Your task to perform on an android device: manage bookmarks in the chrome app Image 0: 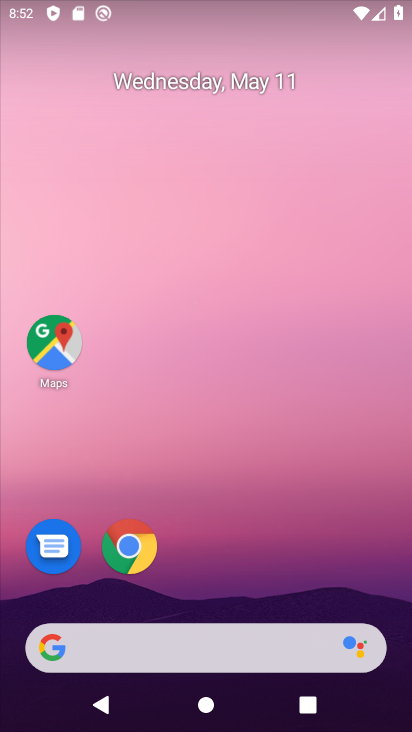
Step 0: click (116, 555)
Your task to perform on an android device: manage bookmarks in the chrome app Image 1: 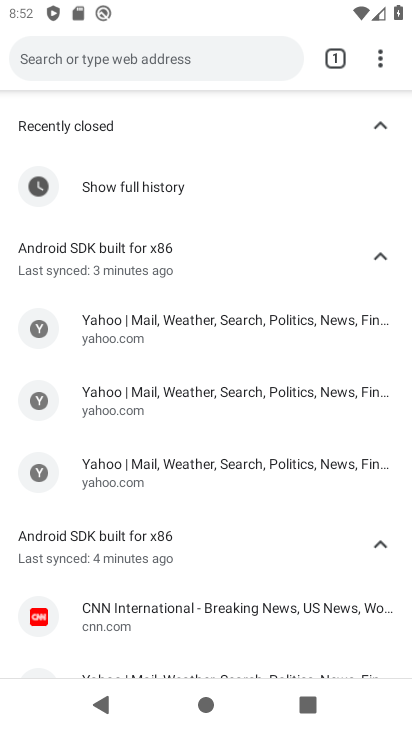
Step 1: click (386, 66)
Your task to perform on an android device: manage bookmarks in the chrome app Image 2: 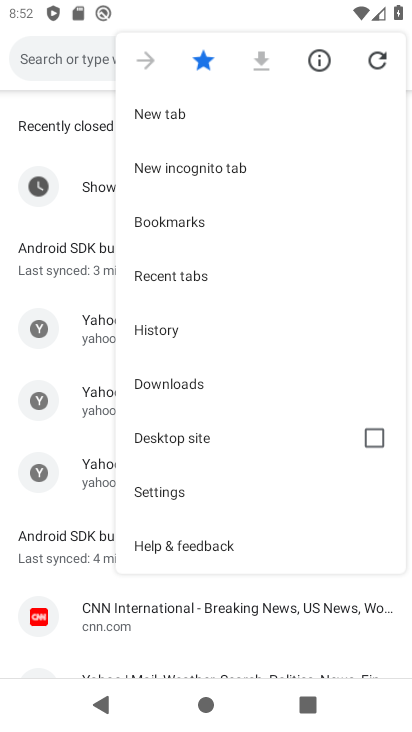
Step 2: click (206, 219)
Your task to perform on an android device: manage bookmarks in the chrome app Image 3: 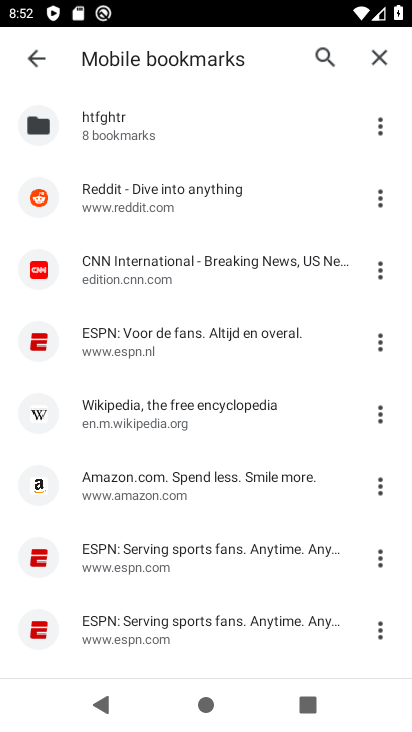
Step 3: click (39, 556)
Your task to perform on an android device: manage bookmarks in the chrome app Image 4: 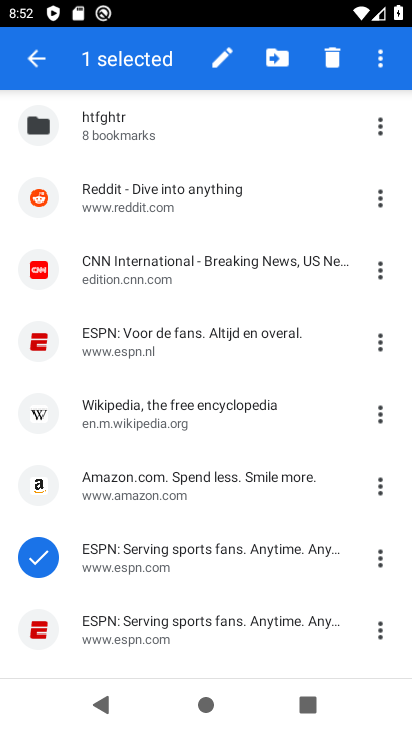
Step 4: click (40, 479)
Your task to perform on an android device: manage bookmarks in the chrome app Image 5: 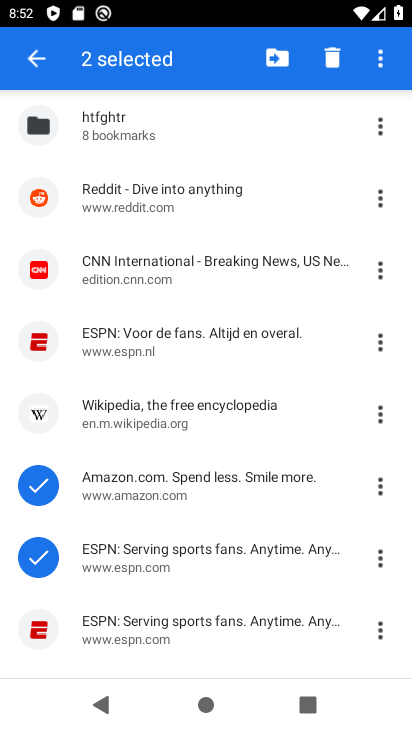
Step 5: click (40, 422)
Your task to perform on an android device: manage bookmarks in the chrome app Image 6: 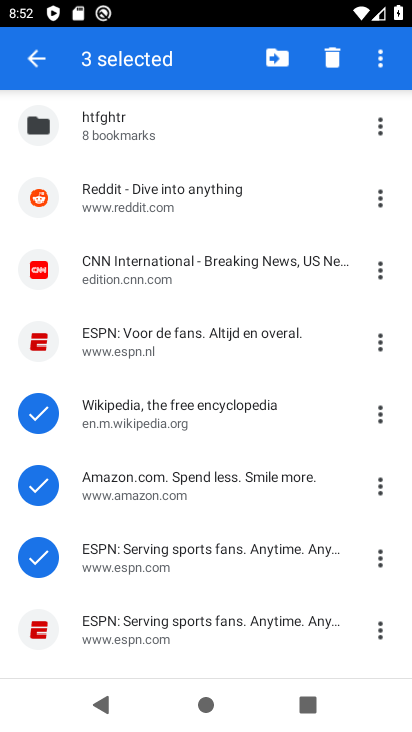
Step 6: click (286, 55)
Your task to perform on an android device: manage bookmarks in the chrome app Image 7: 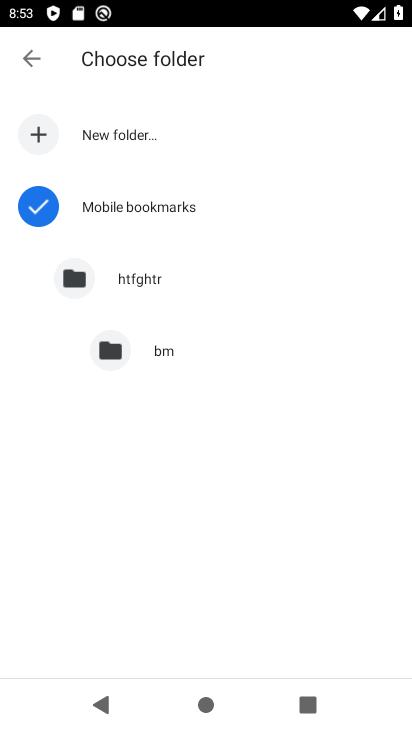
Step 7: click (182, 339)
Your task to perform on an android device: manage bookmarks in the chrome app Image 8: 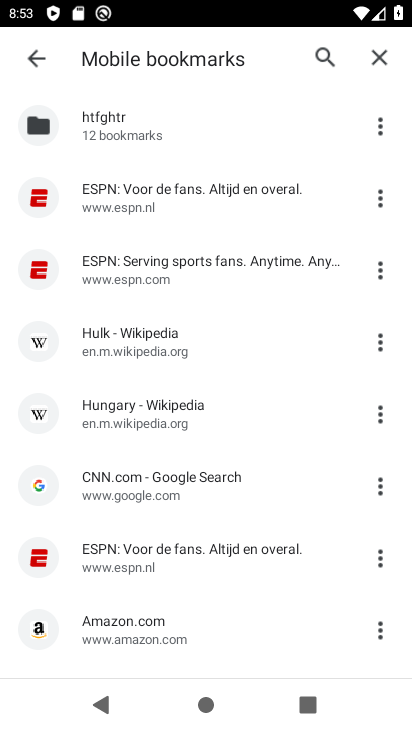
Step 8: click (46, 271)
Your task to perform on an android device: manage bookmarks in the chrome app Image 9: 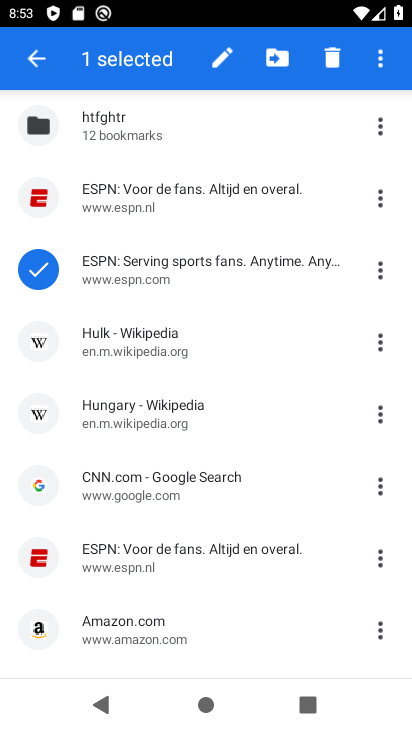
Step 9: click (39, 339)
Your task to perform on an android device: manage bookmarks in the chrome app Image 10: 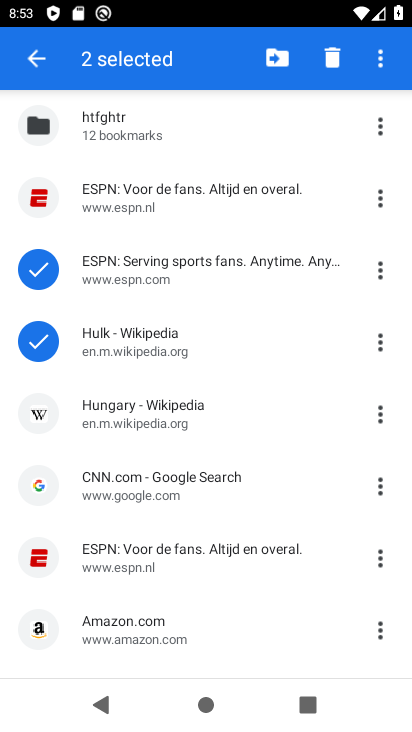
Step 10: click (43, 411)
Your task to perform on an android device: manage bookmarks in the chrome app Image 11: 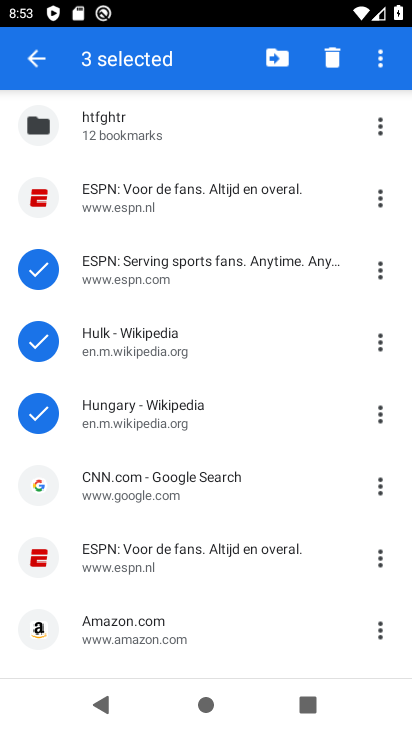
Step 11: click (36, 486)
Your task to perform on an android device: manage bookmarks in the chrome app Image 12: 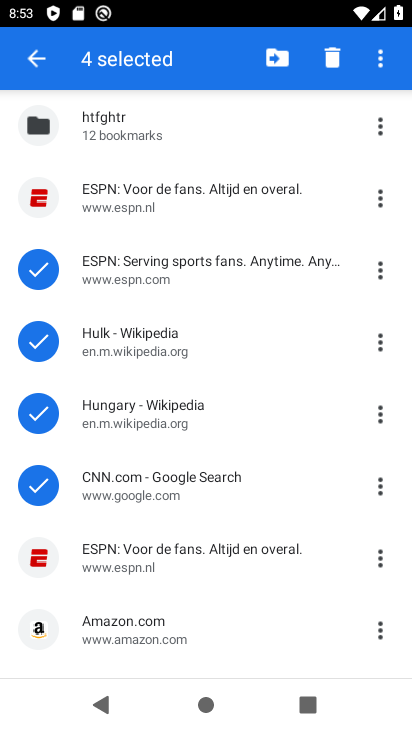
Step 12: click (38, 568)
Your task to perform on an android device: manage bookmarks in the chrome app Image 13: 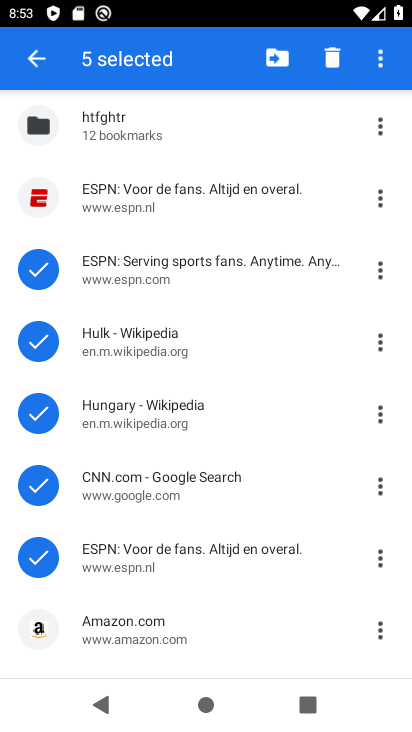
Step 13: click (43, 626)
Your task to perform on an android device: manage bookmarks in the chrome app Image 14: 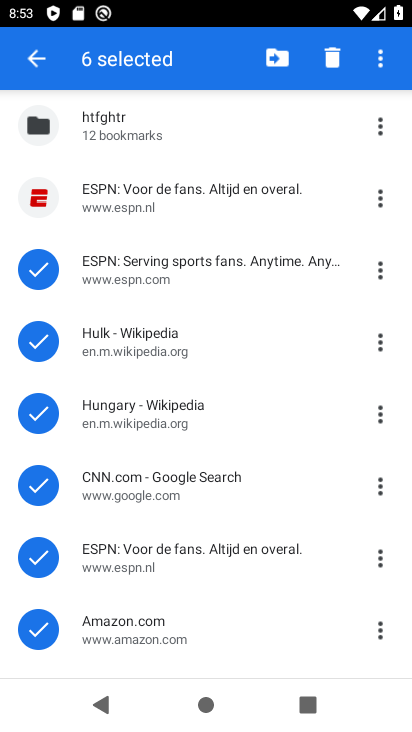
Step 14: click (335, 64)
Your task to perform on an android device: manage bookmarks in the chrome app Image 15: 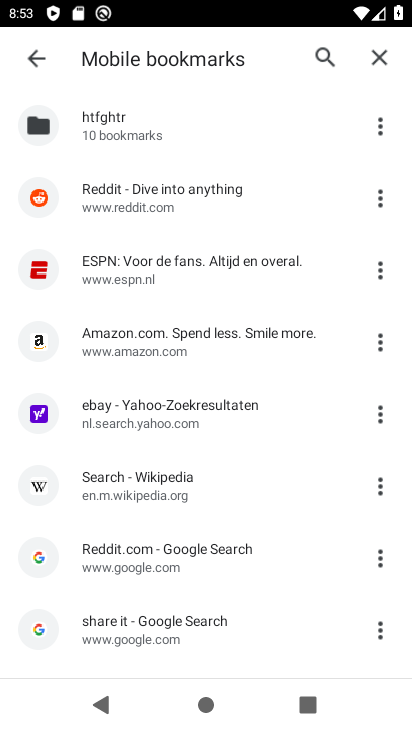
Step 15: task complete